Your task to perform on an android device: turn off javascript in the chrome app Image 0: 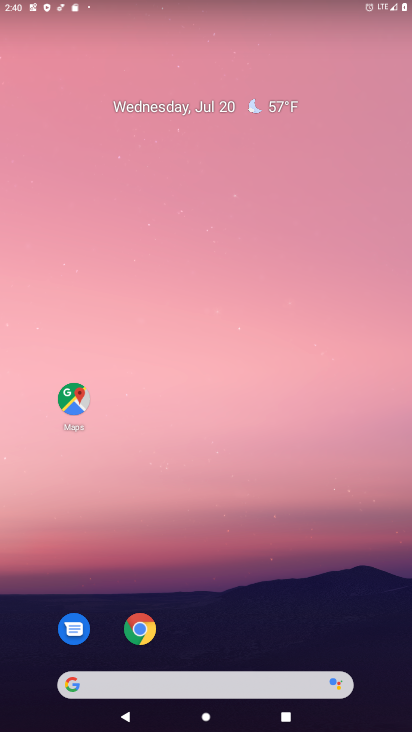
Step 0: click (139, 630)
Your task to perform on an android device: turn off javascript in the chrome app Image 1: 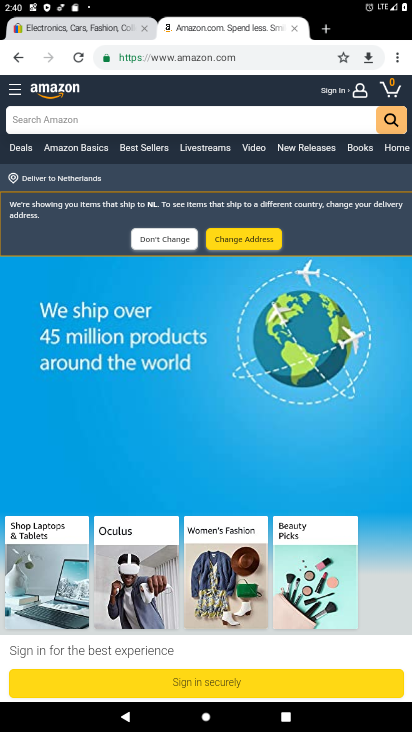
Step 1: click (396, 62)
Your task to perform on an android device: turn off javascript in the chrome app Image 2: 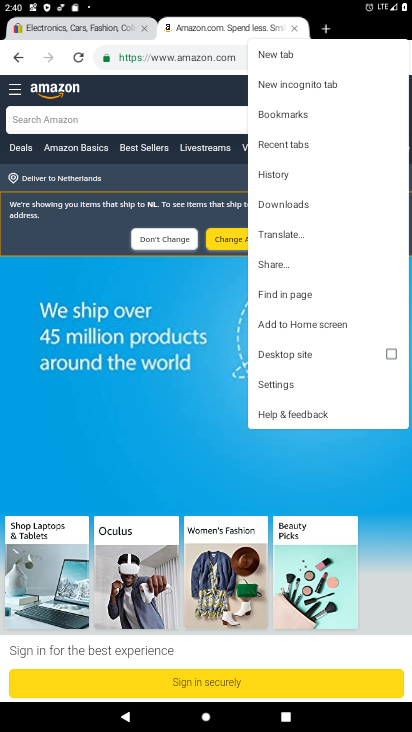
Step 2: click (275, 381)
Your task to perform on an android device: turn off javascript in the chrome app Image 3: 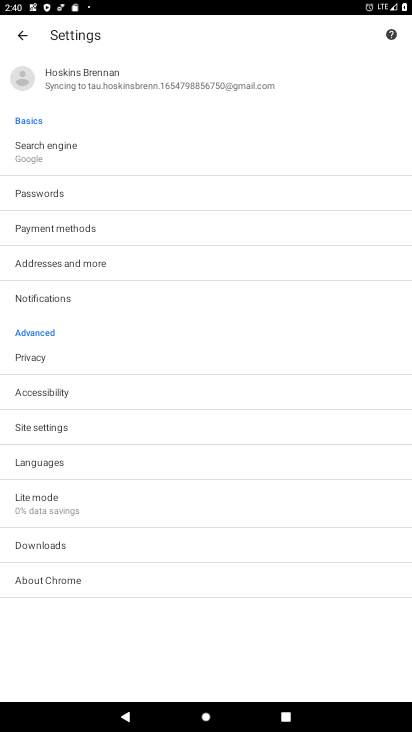
Step 3: click (40, 421)
Your task to perform on an android device: turn off javascript in the chrome app Image 4: 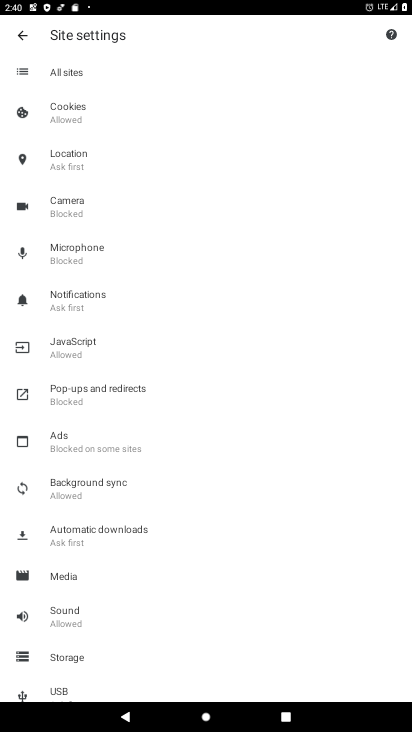
Step 4: click (59, 344)
Your task to perform on an android device: turn off javascript in the chrome app Image 5: 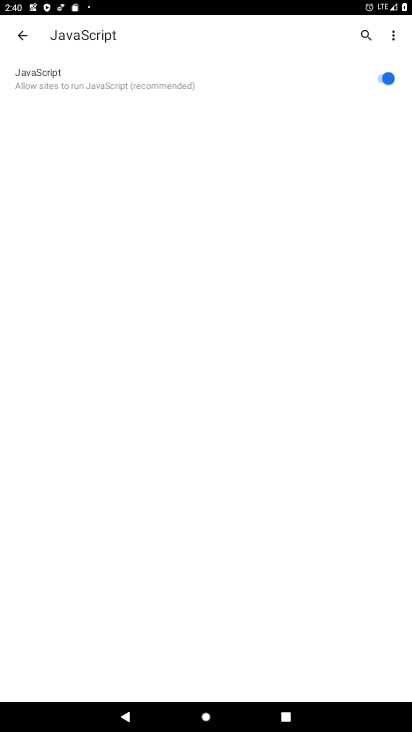
Step 5: click (374, 78)
Your task to perform on an android device: turn off javascript in the chrome app Image 6: 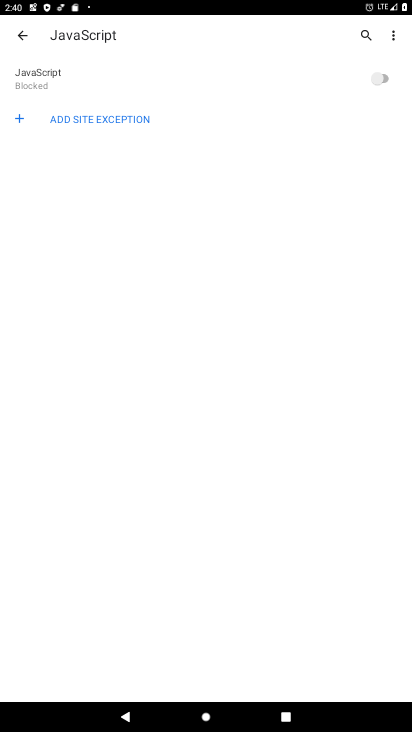
Step 6: task complete